Your task to perform on an android device: Open the web browser Image 0: 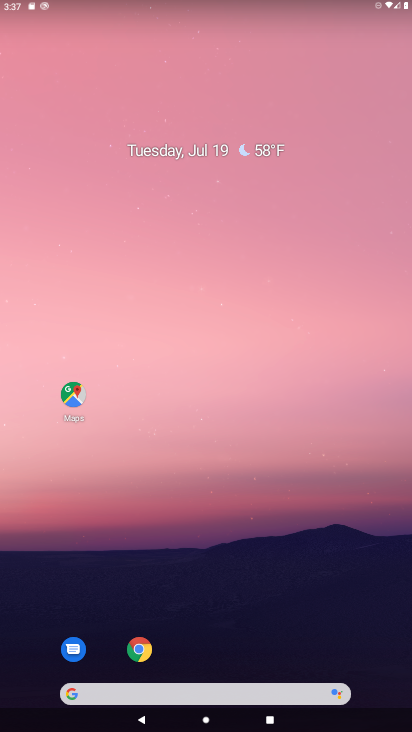
Step 0: click (143, 644)
Your task to perform on an android device: Open the web browser Image 1: 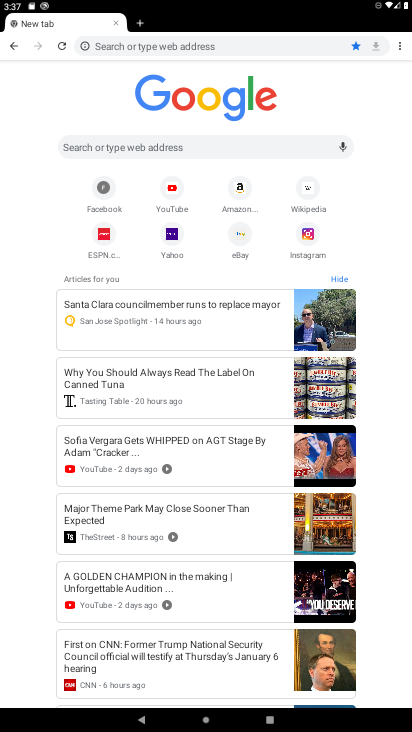
Step 1: task complete